Your task to perform on an android device: Open Google Image 0: 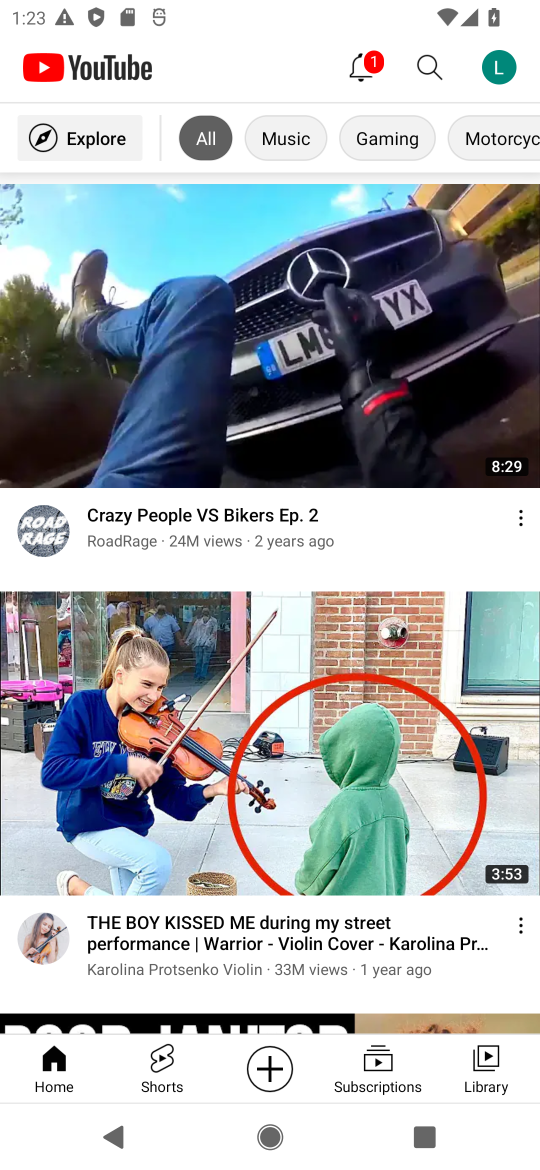
Step 0: press back button
Your task to perform on an android device: Open Google Image 1: 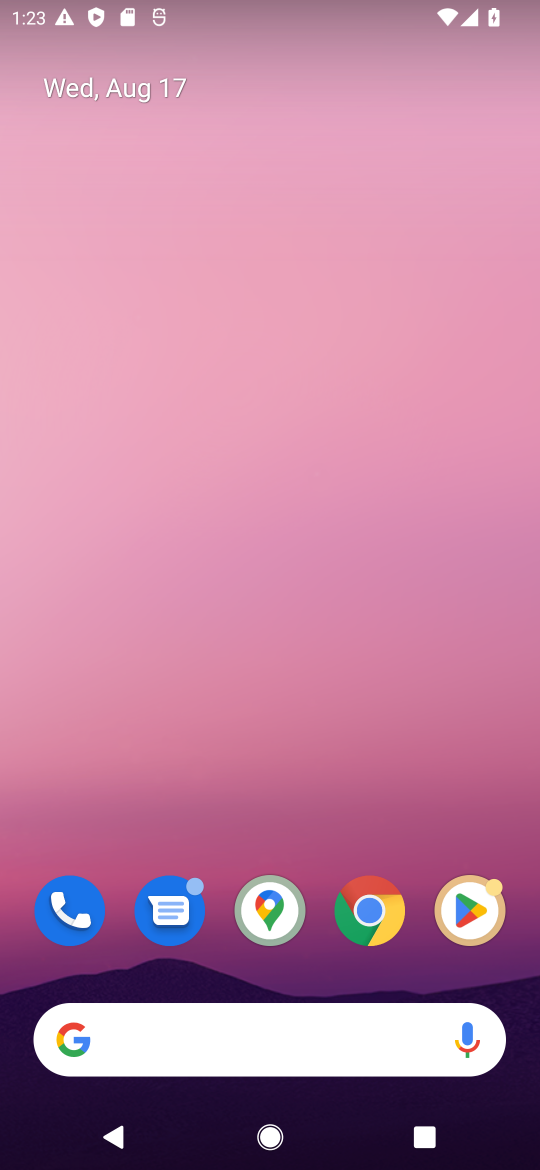
Step 1: drag from (250, 751) to (340, 48)
Your task to perform on an android device: Open Google Image 2: 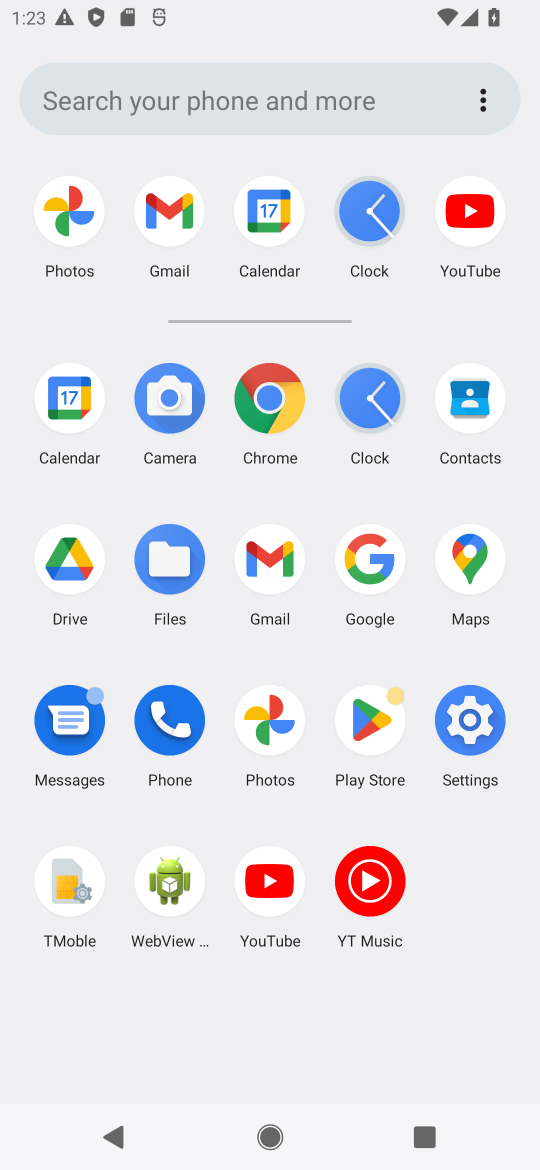
Step 2: click (370, 557)
Your task to perform on an android device: Open Google Image 3: 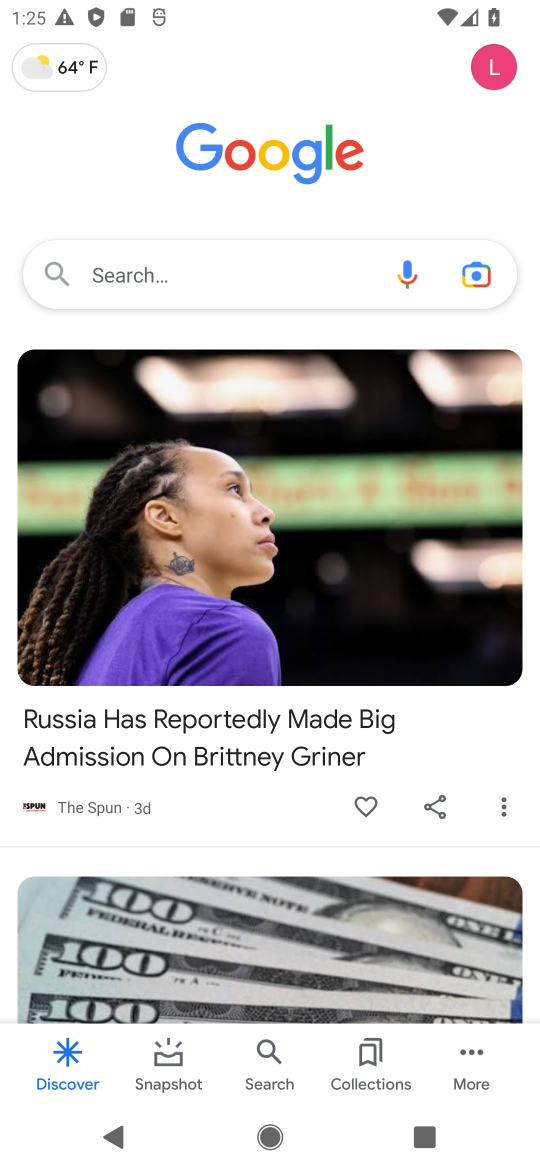
Step 3: task complete